Your task to perform on an android device: turn off location history Image 0: 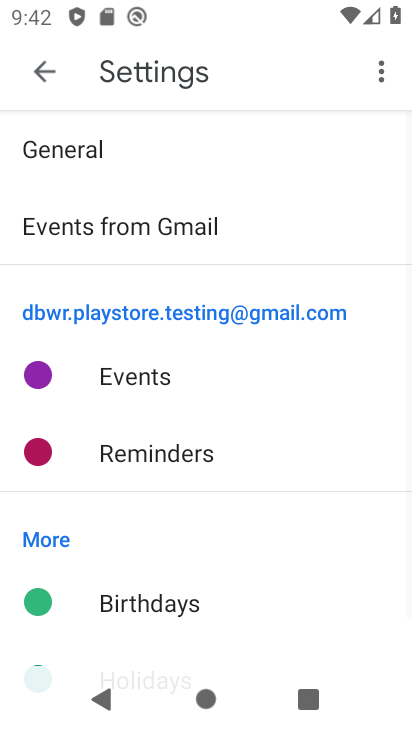
Step 0: press home button
Your task to perform on an android device: turn off location history Image 1: 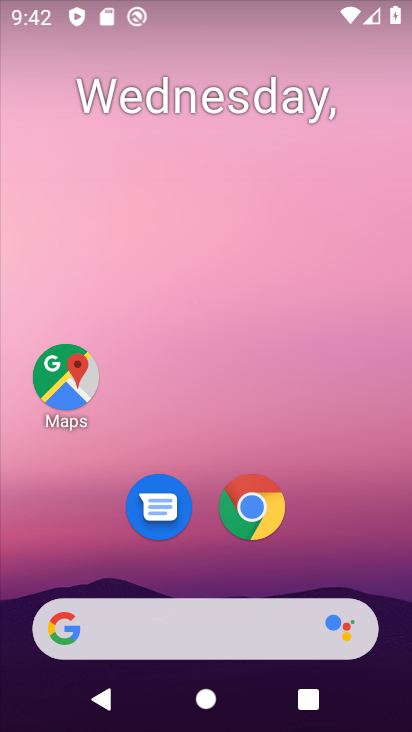
Step 1: click (143, 237)
Your task to perform on an android device: turn off location history Image 2: 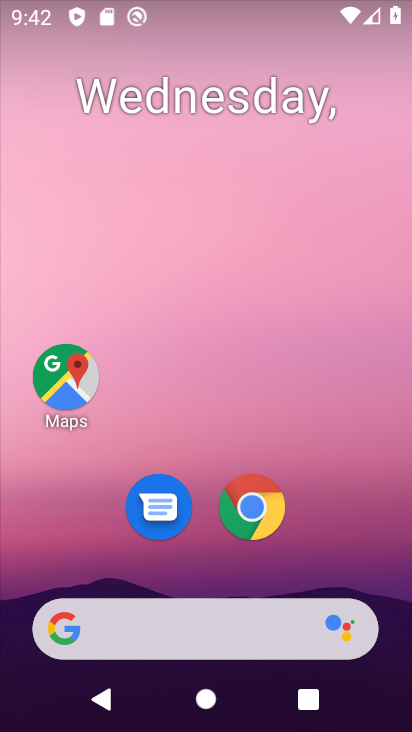
Step 2: drag from (266, 658) to (330, 185)
Your task to perform on an android device: turn off location history Image 3: 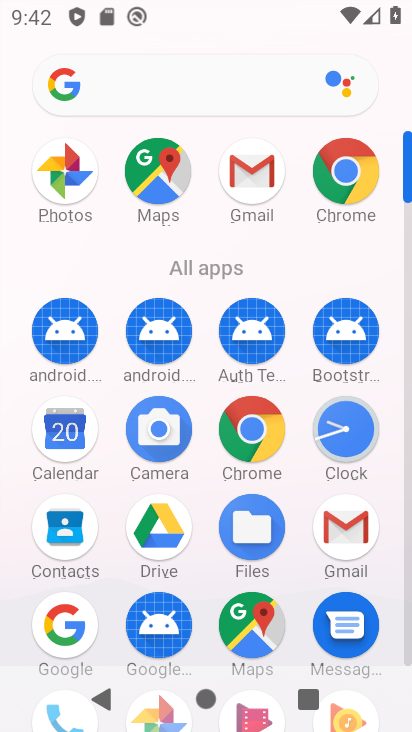
Step 3: click (186, 95)
Your task to perform on an android device: turn off location history Image 4: 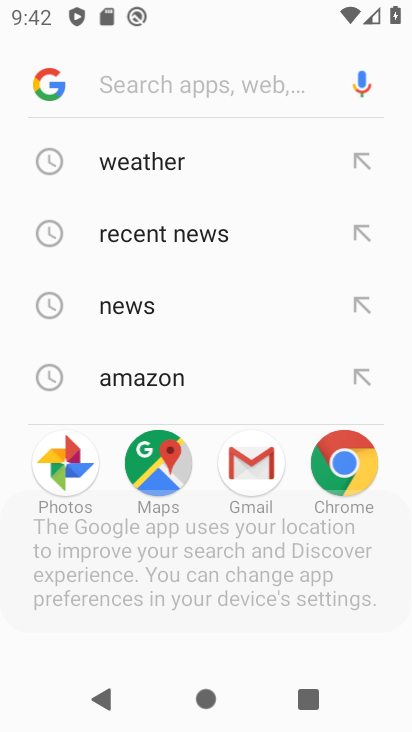
Step 4: press home button
Your task to perform on an android device: turn off location history Image 5: 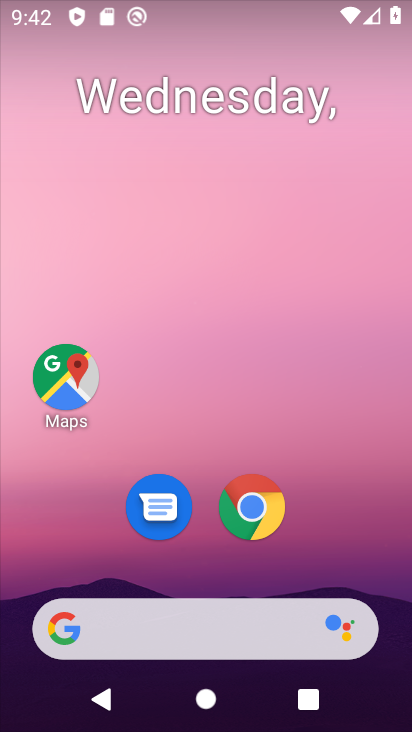
Step 5: drag from (277, 650) to (373, 150)
Your task to perform on an android device: turn off location history Image 6: 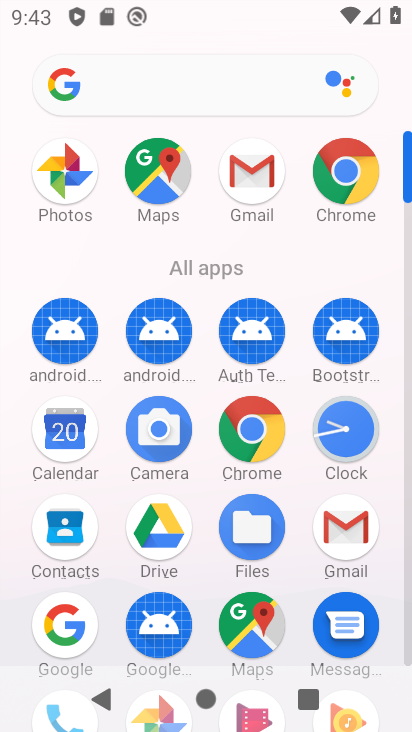
Step 6: drag from (213, 474) to (238, 238)
Your task to perform on an android device: turn off location history Image 7: 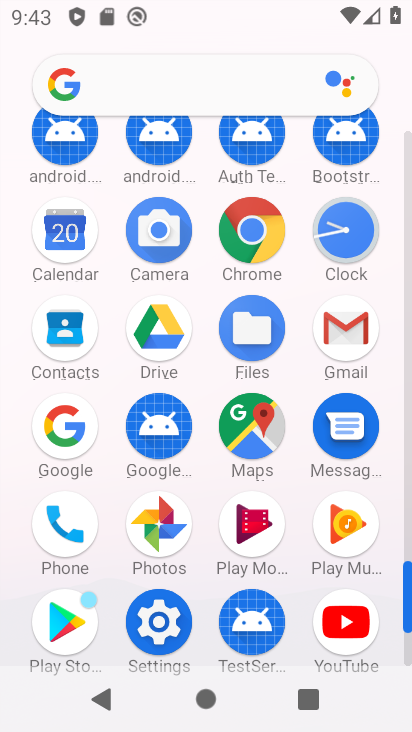
Step 7: click (170, 600)
Your task to perform on an android device: turn off location history Image 8: 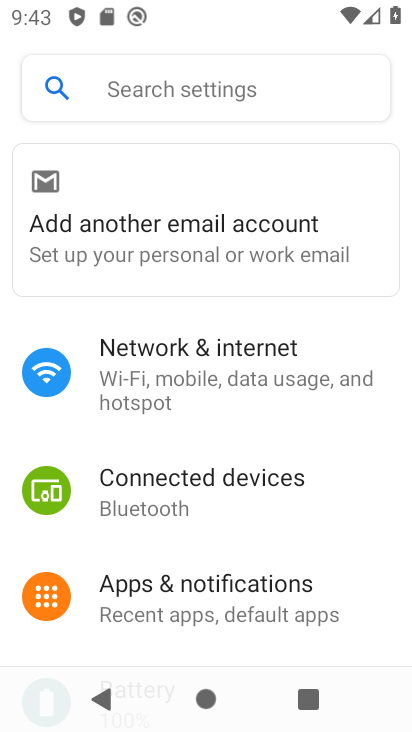
Step 8: click (201, 104)
Your task to perform on an android device: turn off location history Image 9: 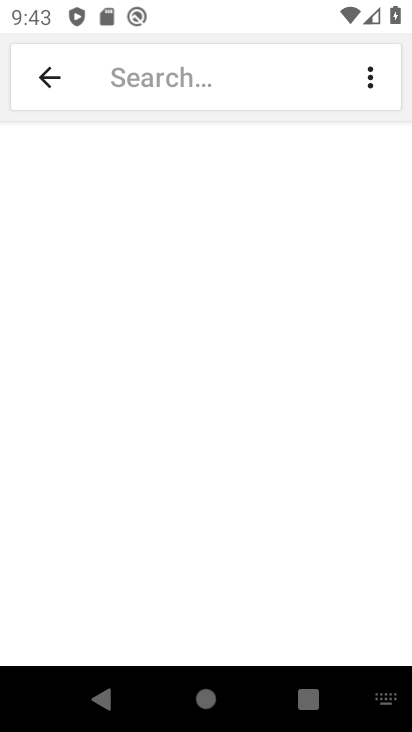
Step 9: click (391, 694)
Your task to perform on an android device: turn off location history Image 10: 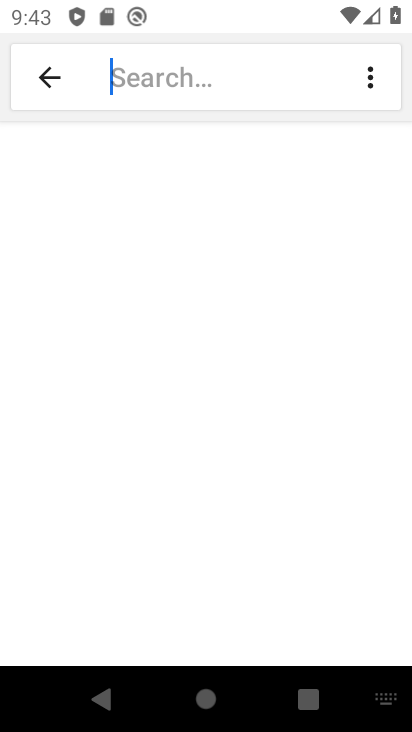
Step 10: click (385, 707)
Your task to perform on an android device: turn off location history Image 11: 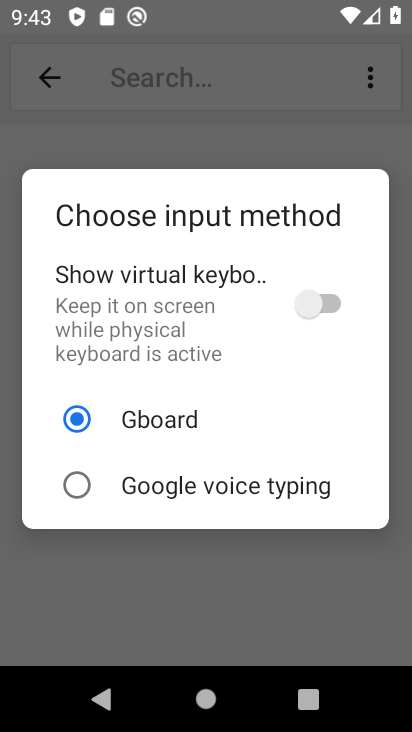
Step 11: click (315, 296)
Your task to perform on an android device: turn off location history Image 12: 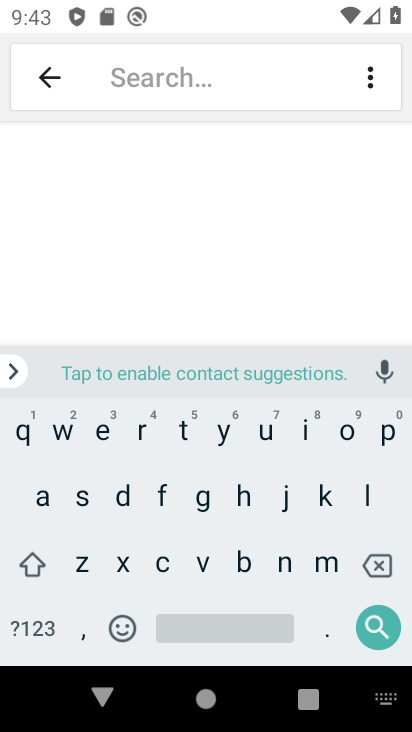
Step 12: click (364, 495)
Your task to perform on an android device: turn off location history Image 13: 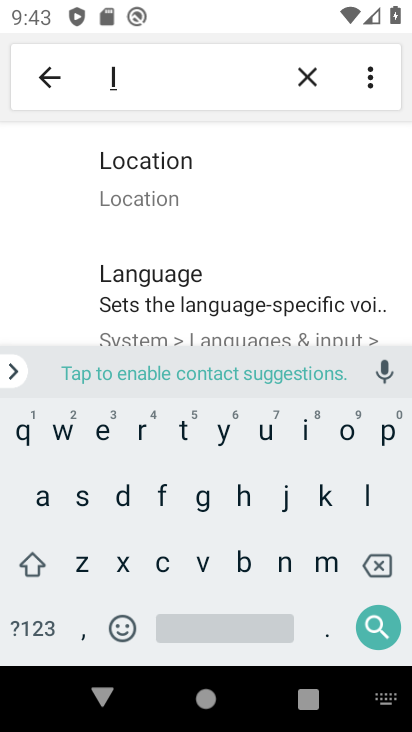
Step 13: click (342, 438)
Your task to perform on an android device: turn off location history Image 14: 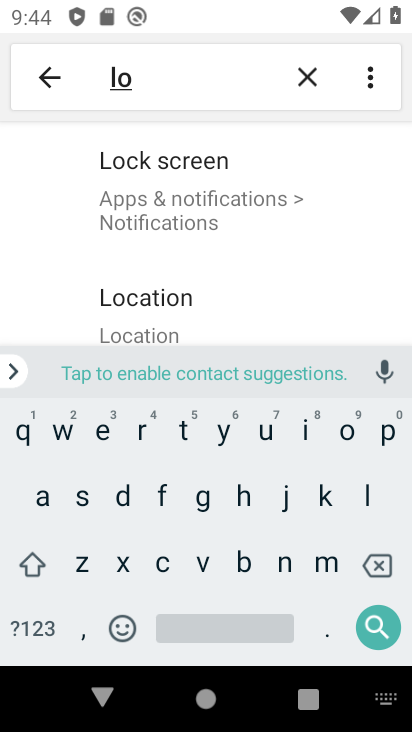
Step 14: click (174, 323)
Your task to perform on an android device: turn off location history Image 15: 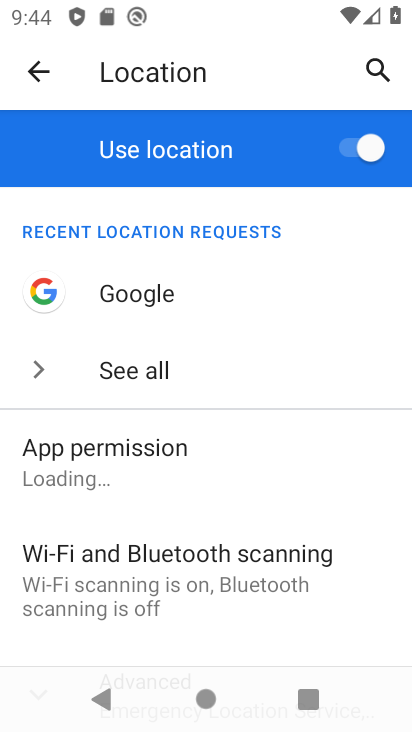
Step 15: drag from (114, 518) to (145, 273)
Your task to perform on an android device: turn off location history Image 16: 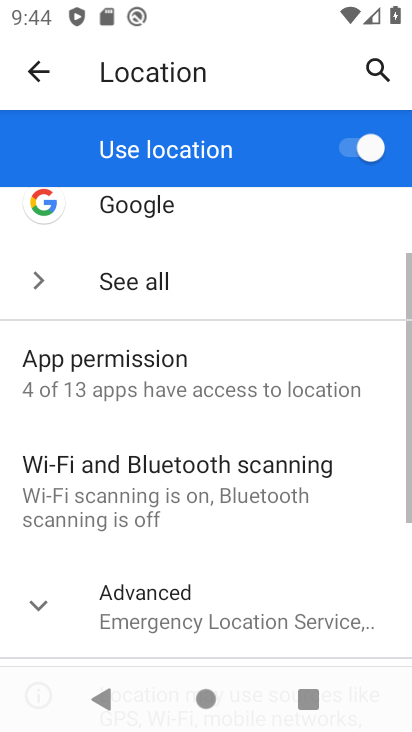
Step 16: click (64, 604)
Your task to perform on an android device: turn off location history Image 17: 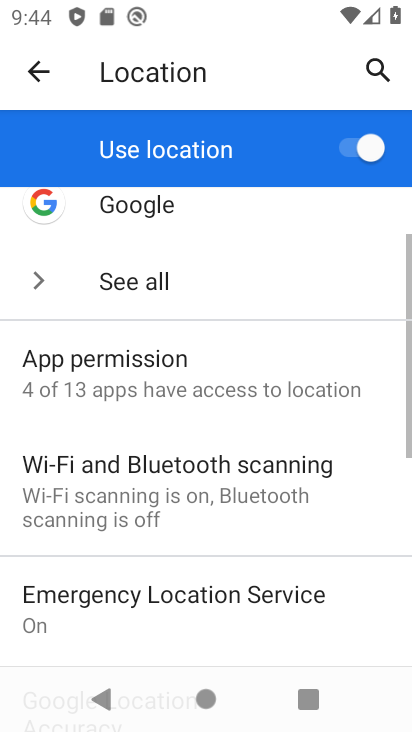
Step 17: drag from (153, 595) to (175, 348)
Your task to perform on an android device: turn off location history Image 18: 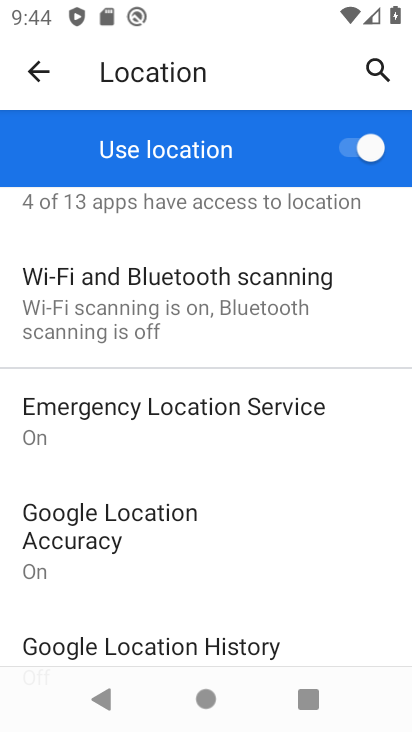
Step 18: click (189, 629)
Your task to perform on an android device: turn off location history Image 19: 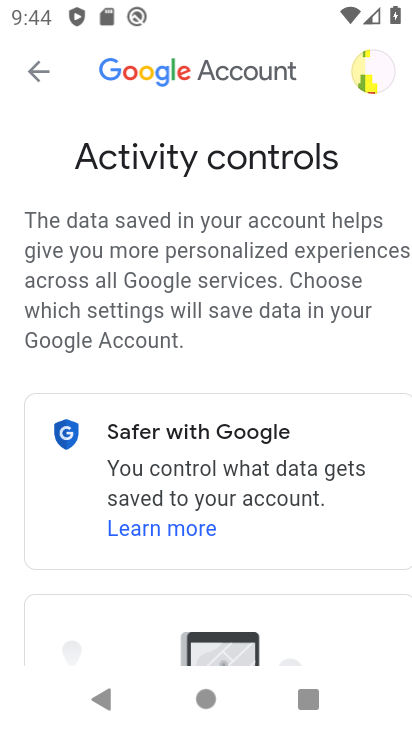
Step 19: drag from (246, 491) to (251, 85)
Your task to perform on an android device: turn off location history Image 20: 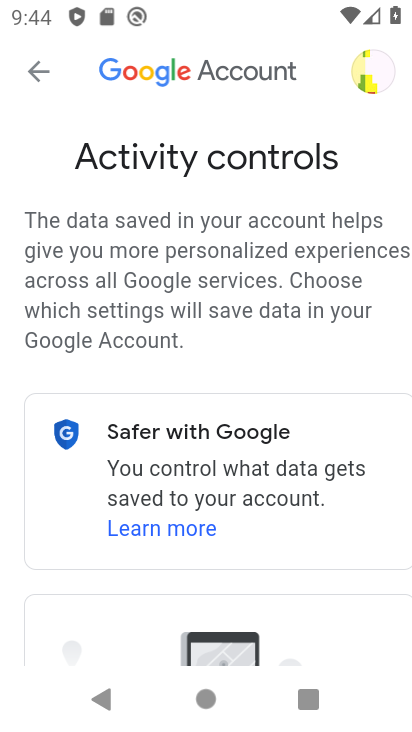
Step 20: drag from (146, 595) to (153, 82)
Your task to perform on an android device: turn off location history Image 21: 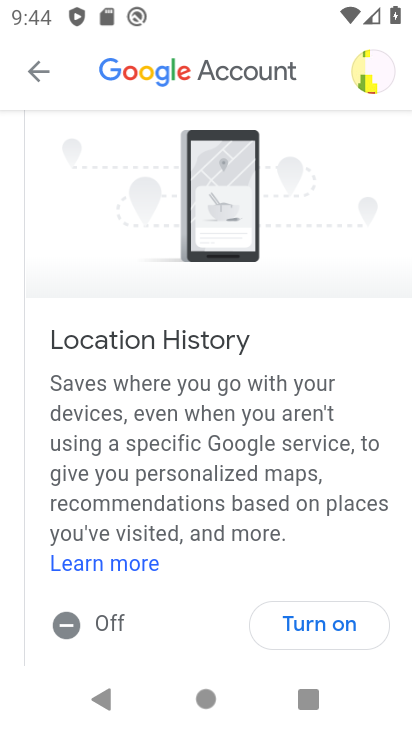
Step 21: click (119, 625)
Your task to perform on an android device: turn off location history Image 22: 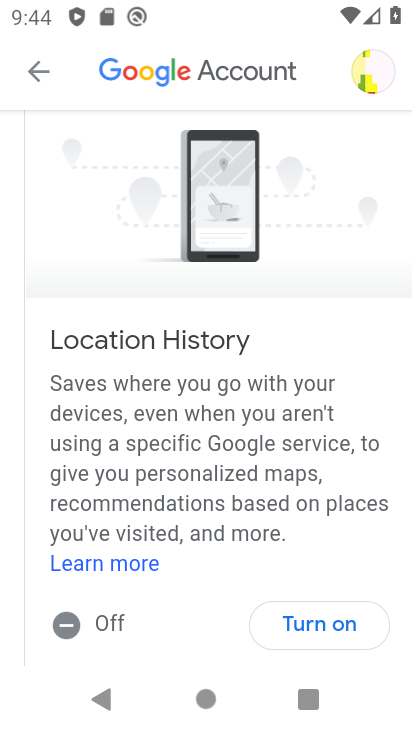
Step 22: task complete